Your task to perform on an android device: Empty the shopping cart on bestbuy. Add duracell triple a to the cart on bestbuy, then select checkout. Image 0: 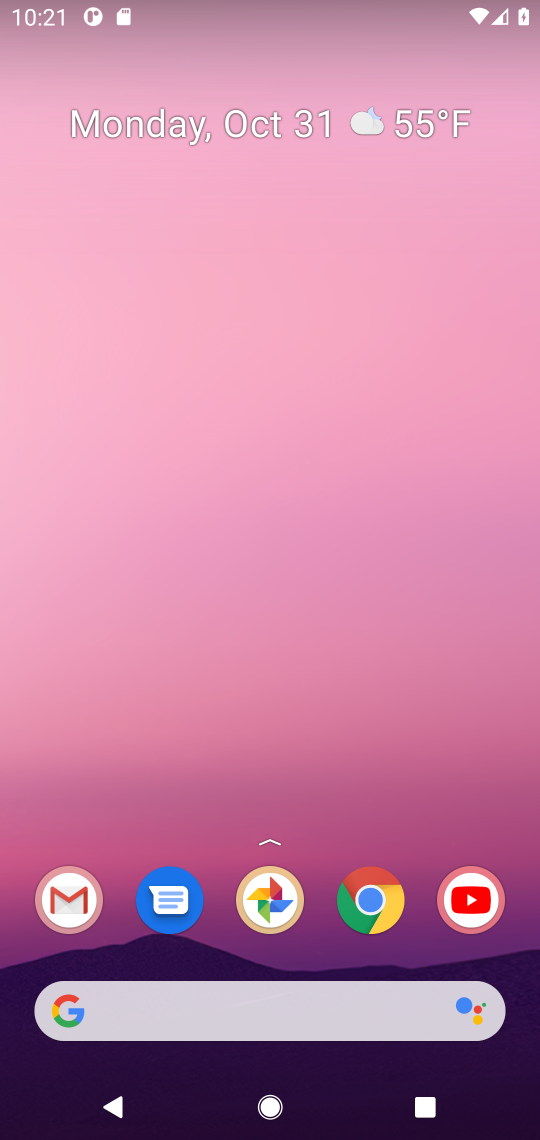
Step 0: click (367, 908)
Your task to perform on an android device: Empty the shopping cart on bestbuy. Add duracell triple a to the cart on bestbuy, then select checkout. Image 1: 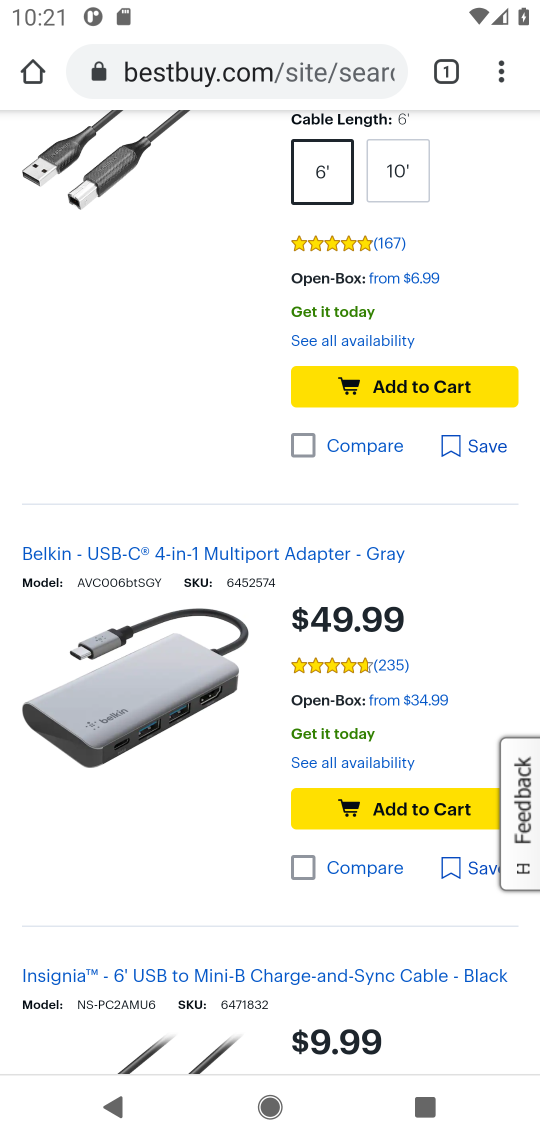
Step 1: click (234, 79)
Your task to perform on an android device: Empty the shopping cart on bestbuy. Add duracell triple a to the cart on bestbuy, then select checkout. Image 2: 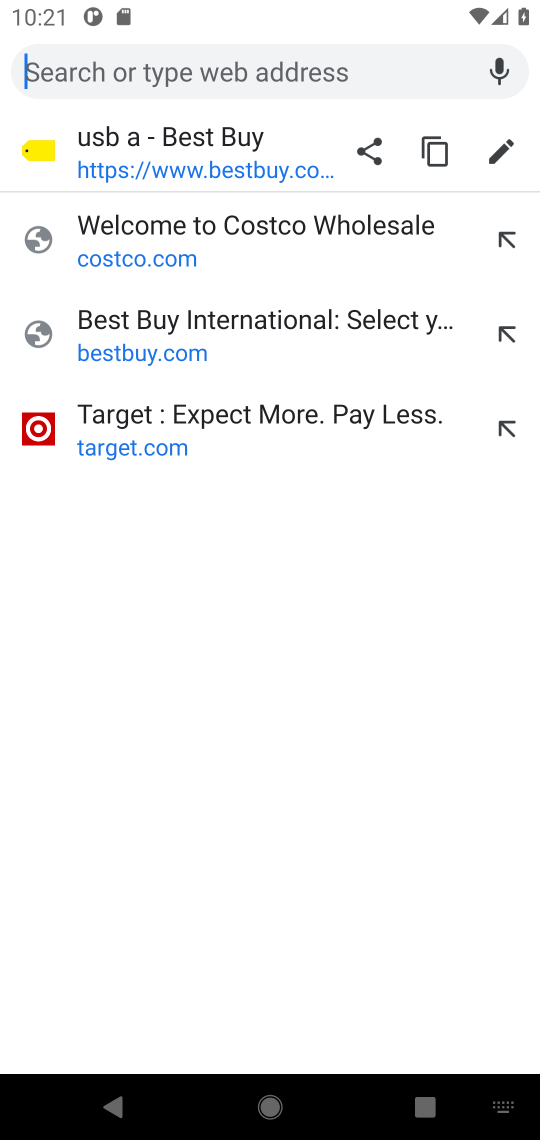
Step 2: type "bestbuy.com"
Your task to perform on an android device: Empty the shopping cart on bestbuy. Add duracell triple a to the cart on bestbuy, then select checkout. Image 3: 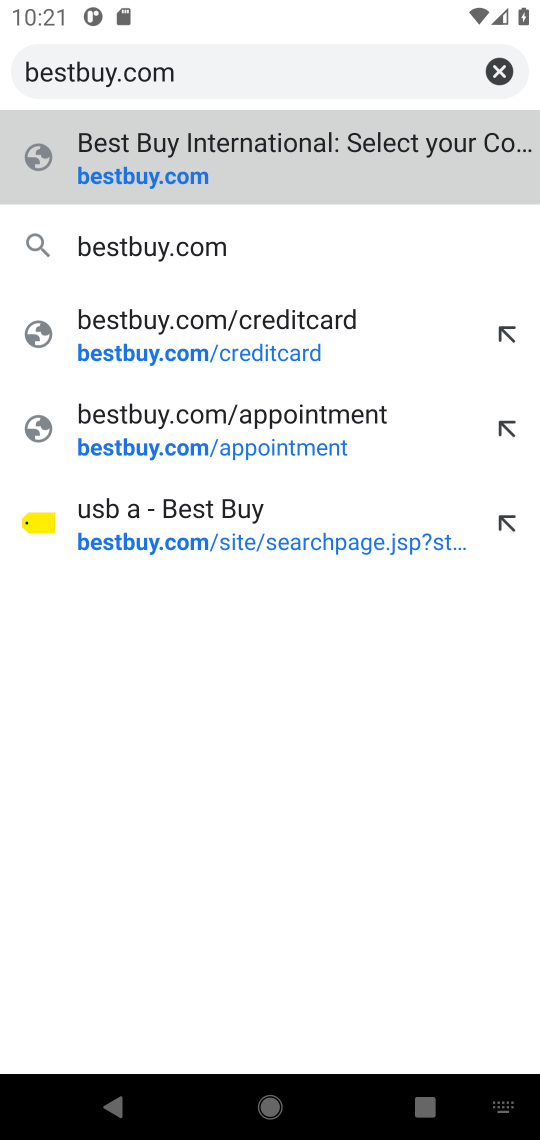
Step 3: click (106, 194)
Your task to perform on an android device: Empty the shopping cart on bestbuy. Add duracell triple a to the cart on bestbuy, then select checkout. Image 4: 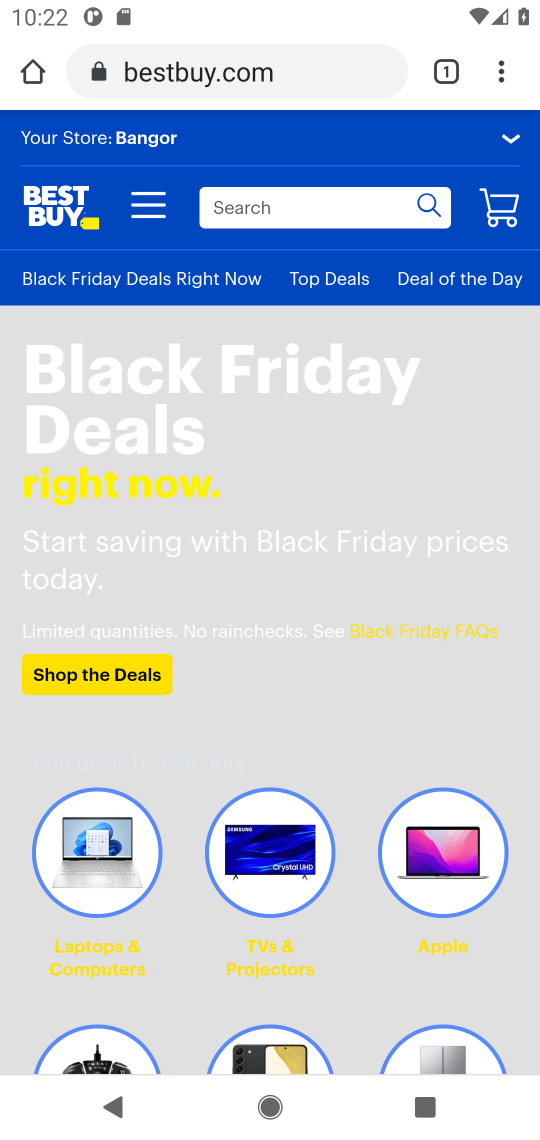
Step 4: click (511, 204)
Your task to perform on an android device: Empty the shopping cart on bestbuy. Add duracell triple a to the cart on bestbuy, then select checkout. Image 5: 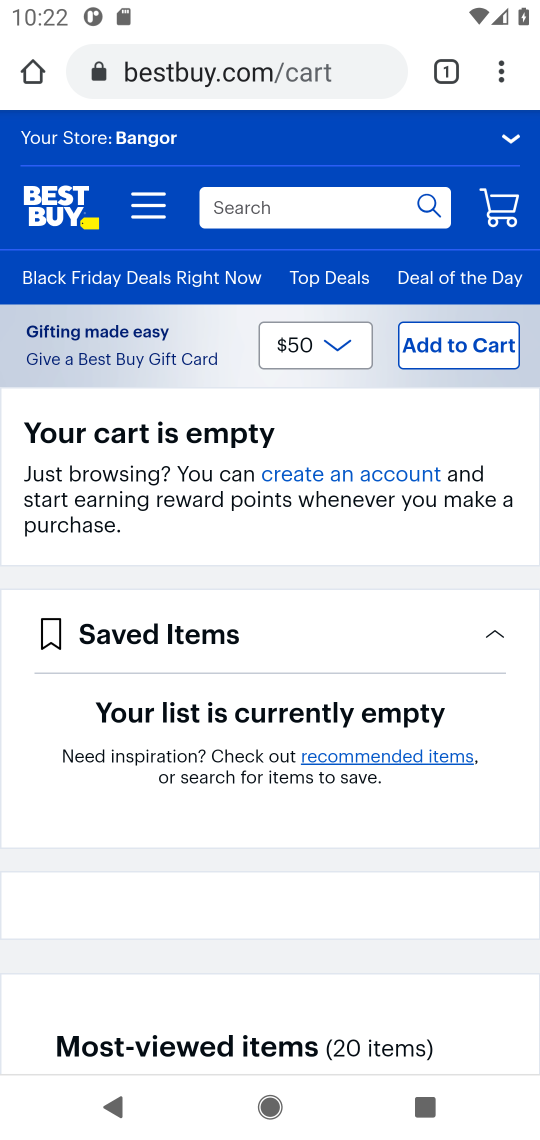
Step 5: click (282, 219)
Your task to perform on an android device: Empty the shopping cart on bestbuy. Add duracell triple a to the cart on bestbuy, then select checkout. Image 6: 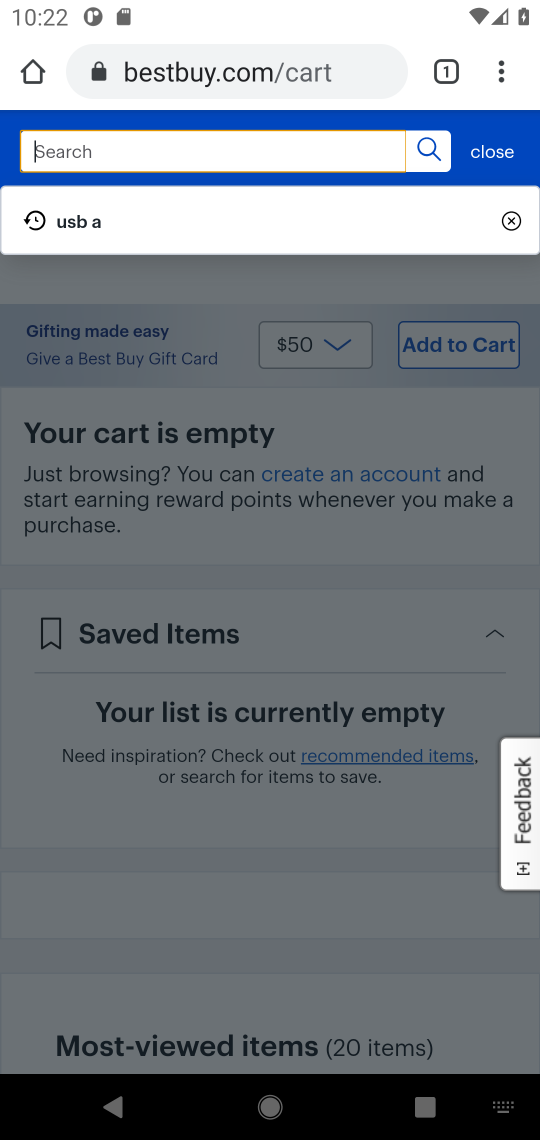
Step 6: type "duracell triple a"
Your task to perform on an android device: Empty the shopping cart on bestbuy. Add duracell triple a to the cart on bestbuy, then select checkout. Image 7: 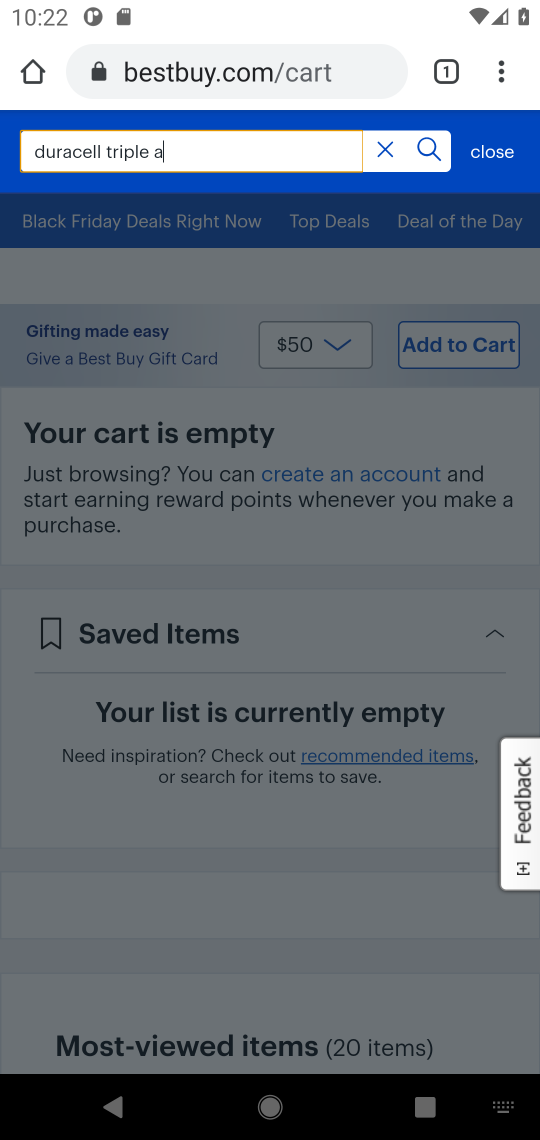
Step 7: click (437, 149)
Your task to perform on an android device: Empty the shopping cart on bestbuy. Add duracell triple a to the cart on bestbuy, then select checkout. Image 8: 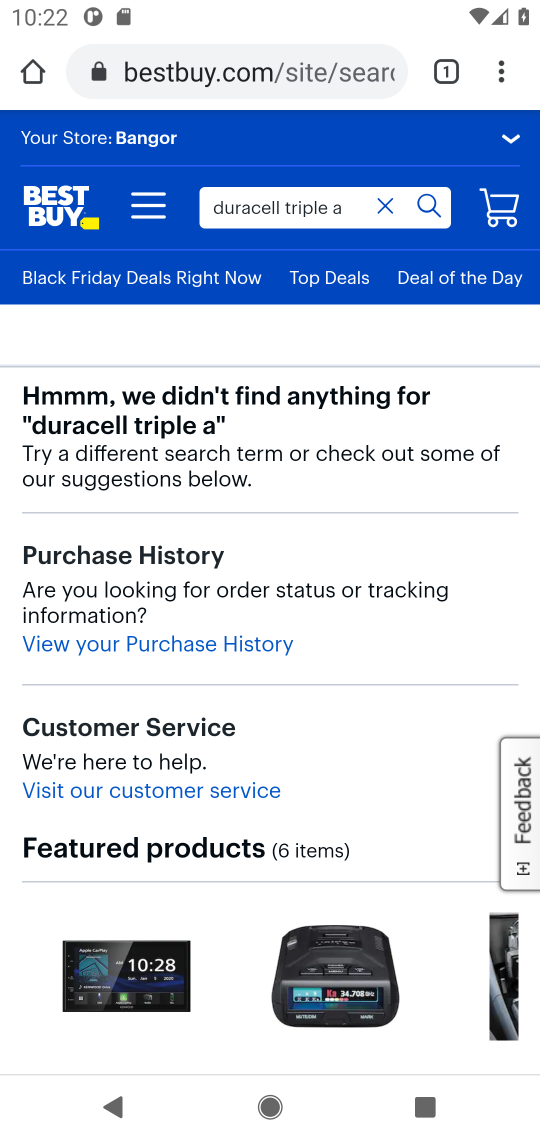
Step 8: task complete